Your task to perform on an android device: turn off priority inbox in the gmail app Image 0: 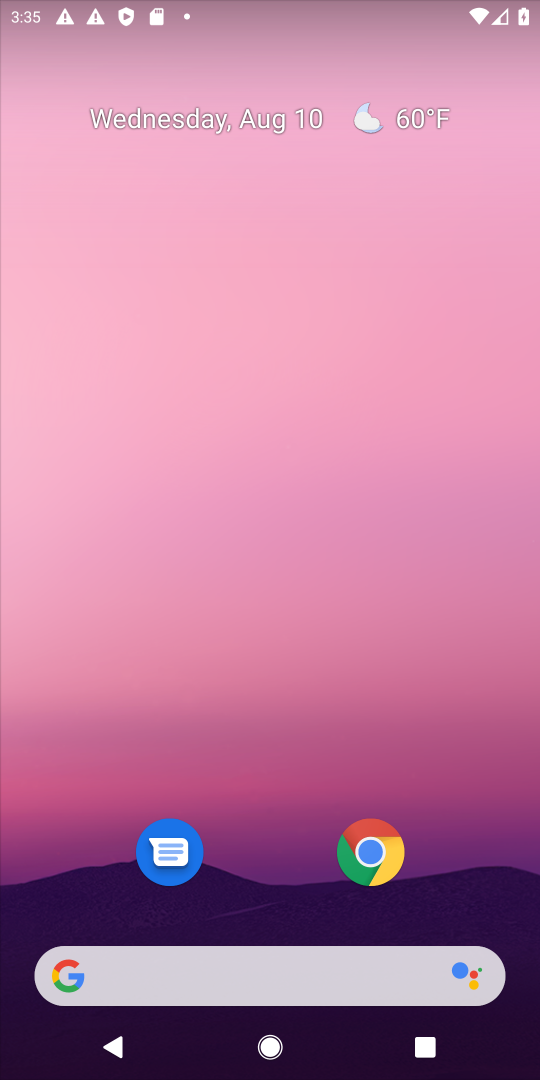
Step 0: drag from (449, 821) to (422, 190)
Your task to perform on an android device: turn off priority inbox in the gmail app Image 1: 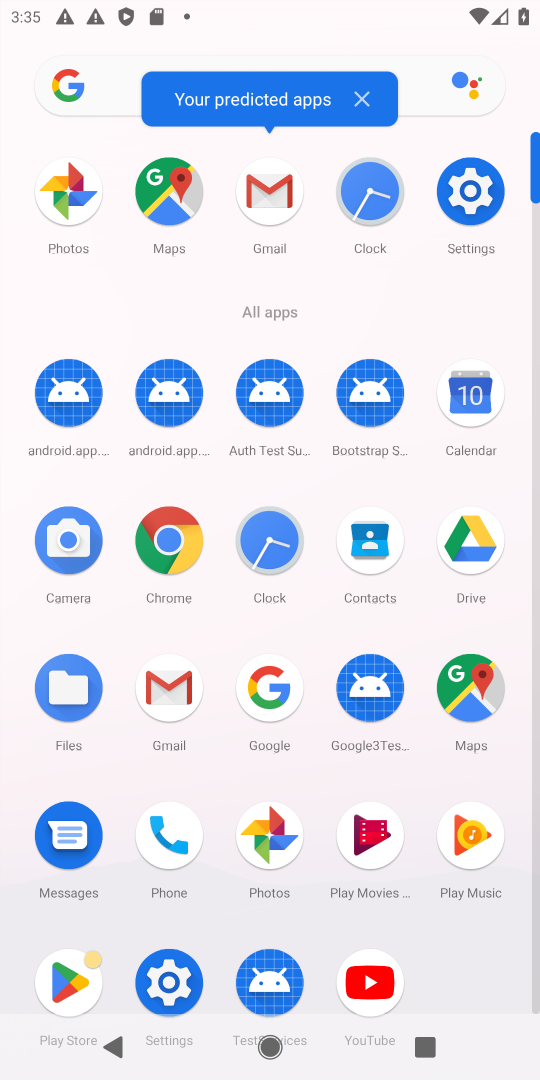
Step 1: click (173, 679)
Your task to perform on an android device: turn off priority inbox in the gmail app Image 2: 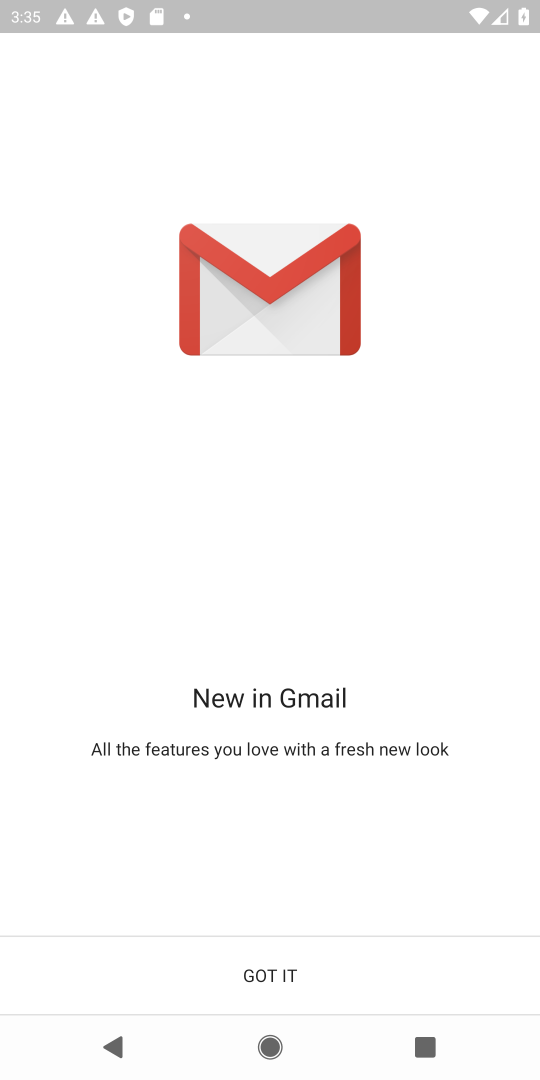
Step 2: click (289, 965)
Your task to perform on an android device: turn off priority inbox in the gmail app Image 3: 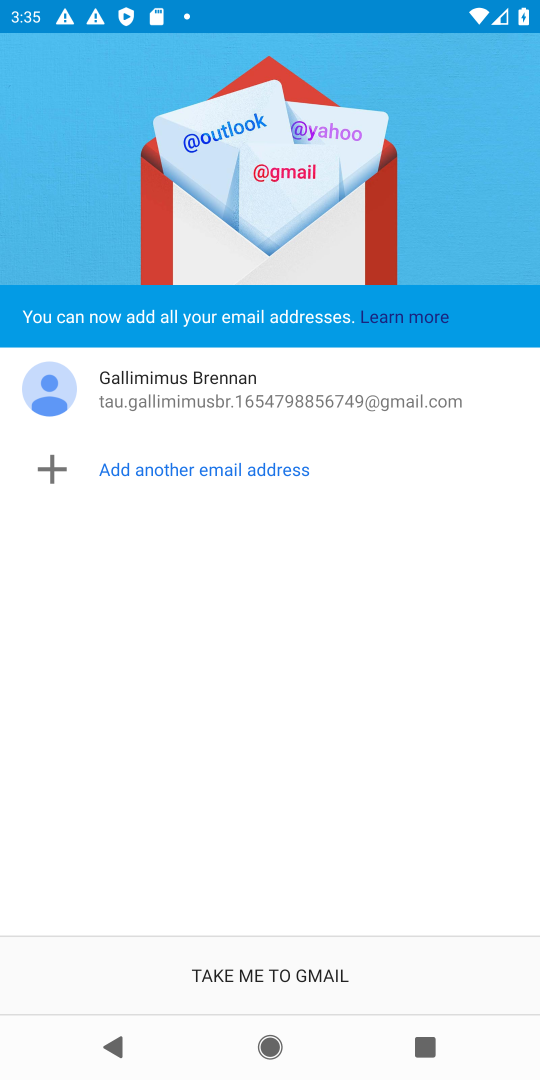
Step 3: click (289, 966)
Your task to perform on an android device: turn off priority inbox in the gmail app Image 4: 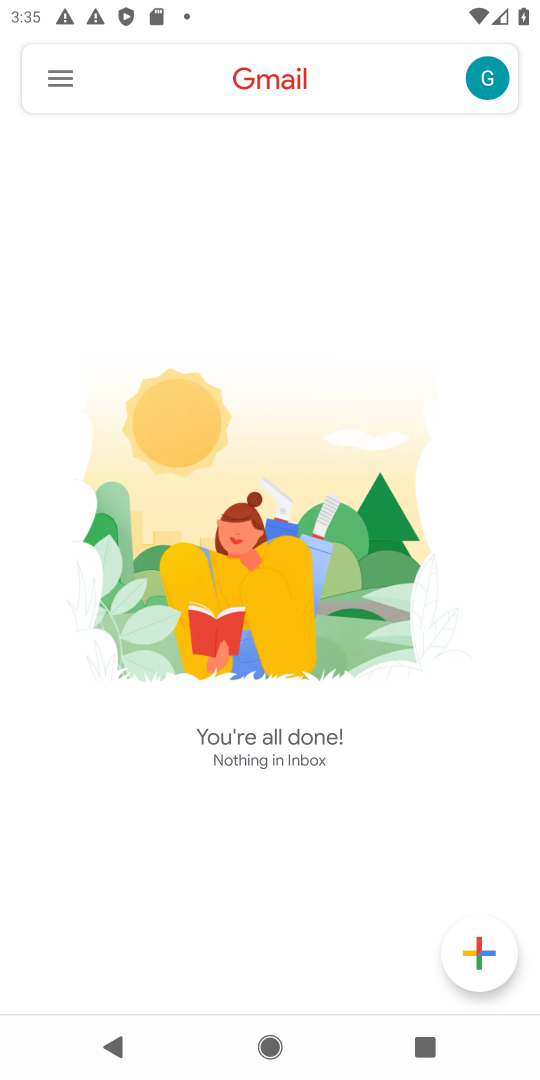
Step 4: click (68, 66)
Your task to perform on an android device: turn off priority inbox in the gmail app Image 5: 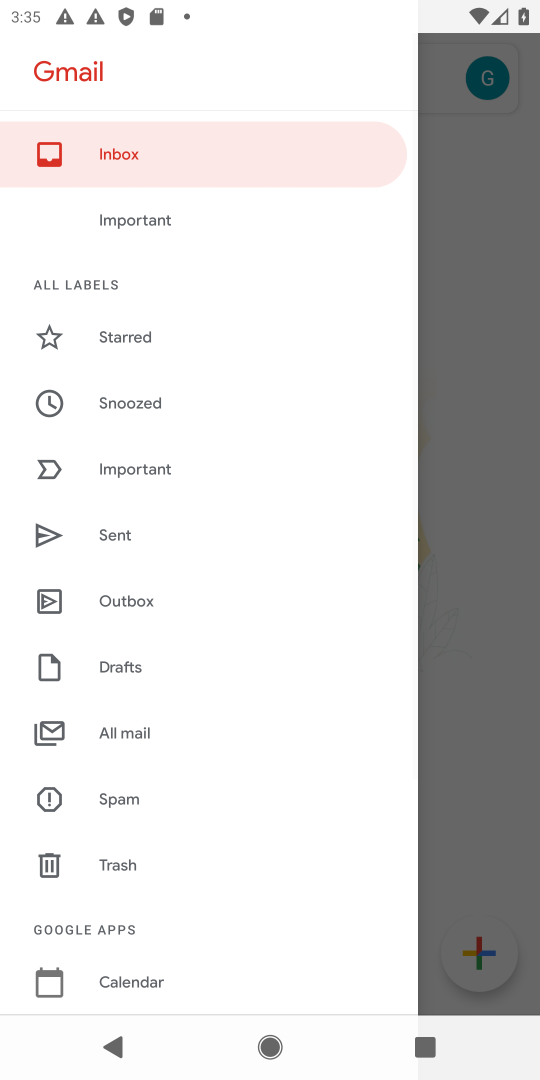
Step 5: drag from (245, 869) to (282, 348)
Your task to perform on an android device: turn off priority inbox in the gmail app Image 6: 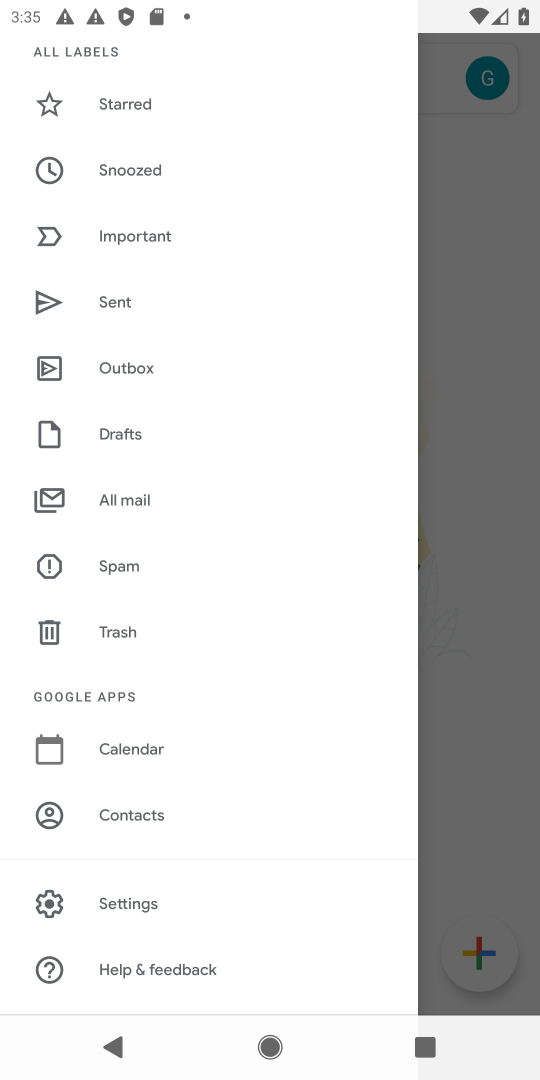
Step 6: click (113, 905)
Your task to perform on an android device: turn off priority inbox in the gmail app Image 7: 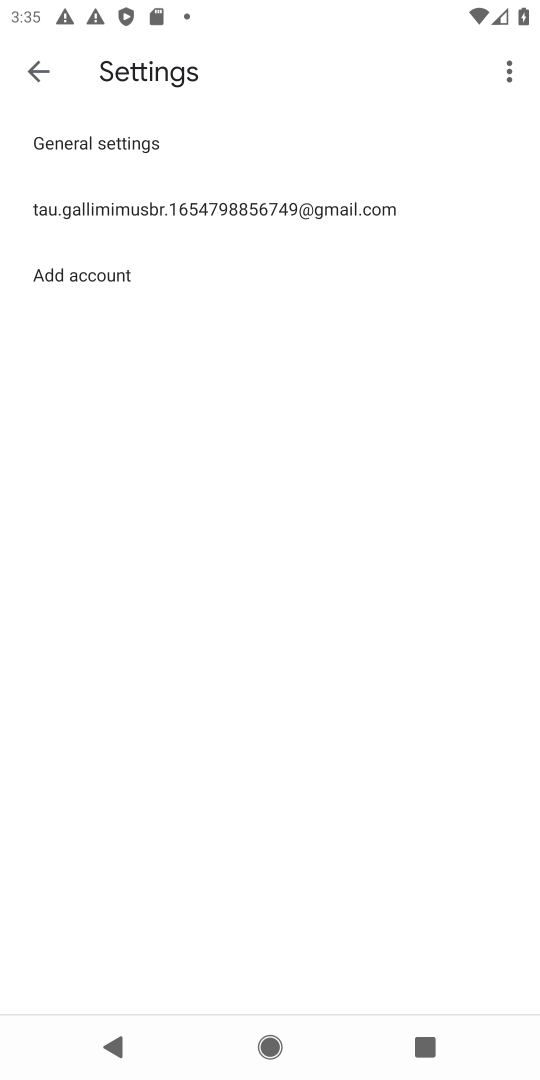
Step 7: click (300, 202)
Your task to perform on an android device: turn off priority inbox in the gmail app Image 8: 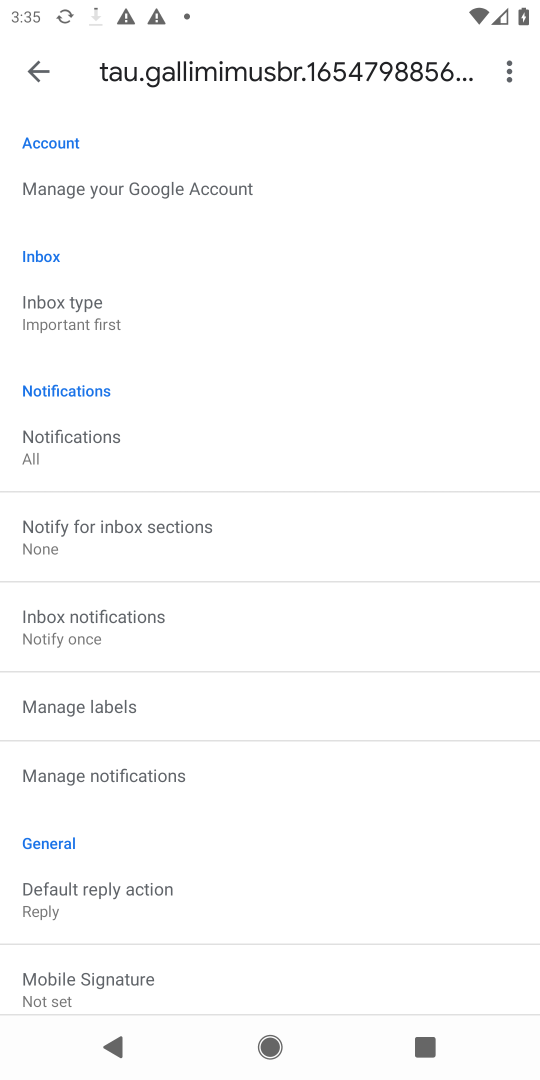
Step 8: click (86, 324)
Your task to perform on an android device: turn off priority inbox in the gmail app Image 9: 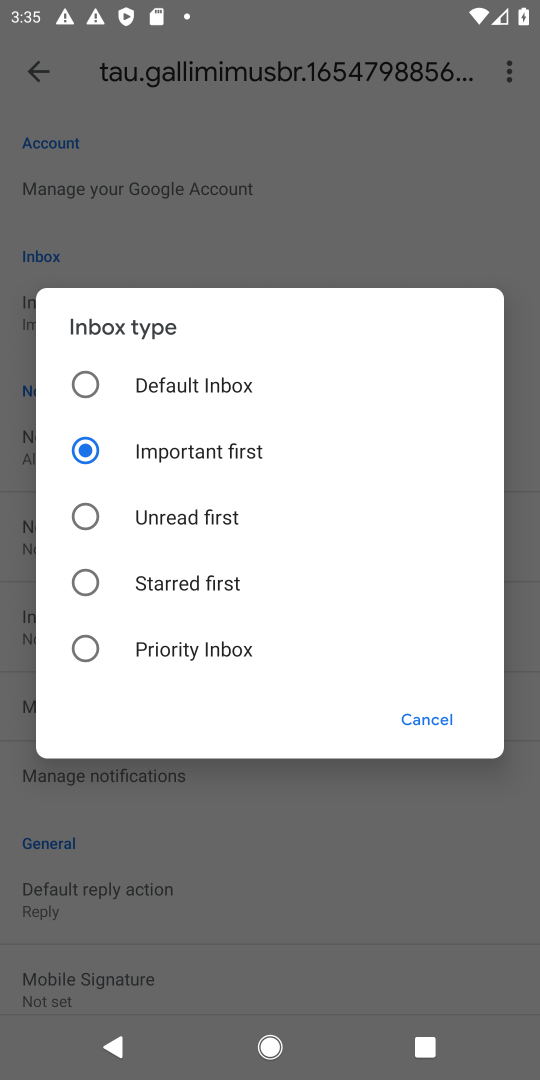
Step 9: task complete